Your task to perform on an android device: clear history in the chrome app Image 0: 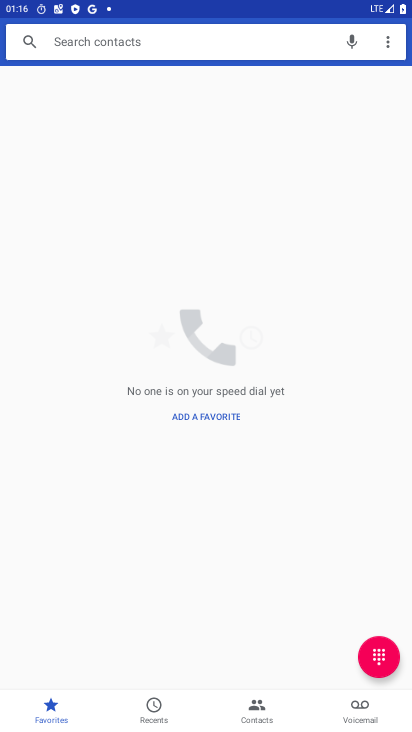
Step 0: press home button
Your task to perform on an android device: clear history in the chrome app Image 1: 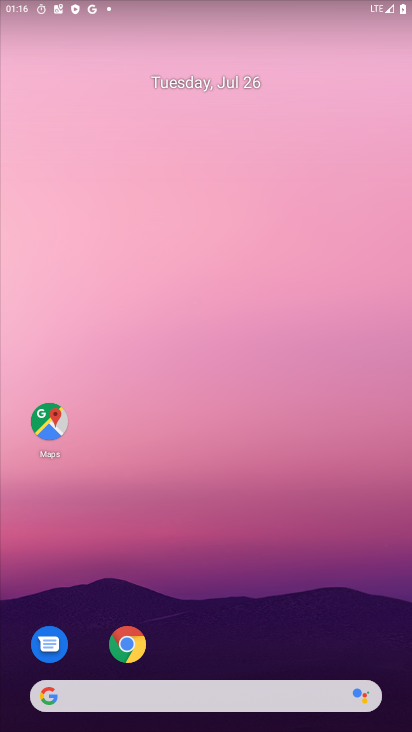
Step 1: click (130, 649)
Your task to perform on an android device: clear history in the chrome app Image 2: 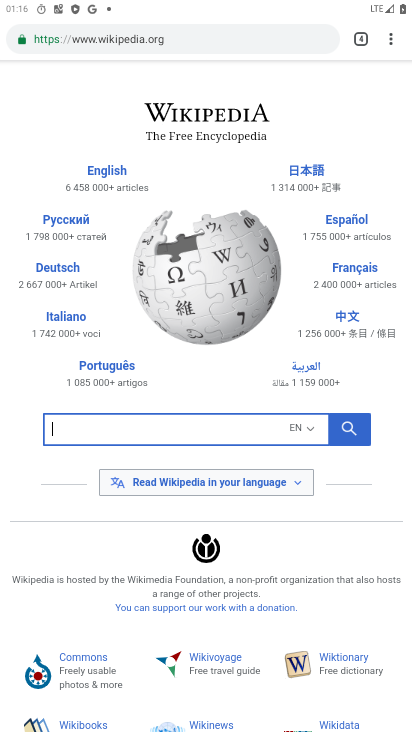
Step 2: click (391, 41)
Your task to perform on an android device: clear history in the chrome app Image 3: 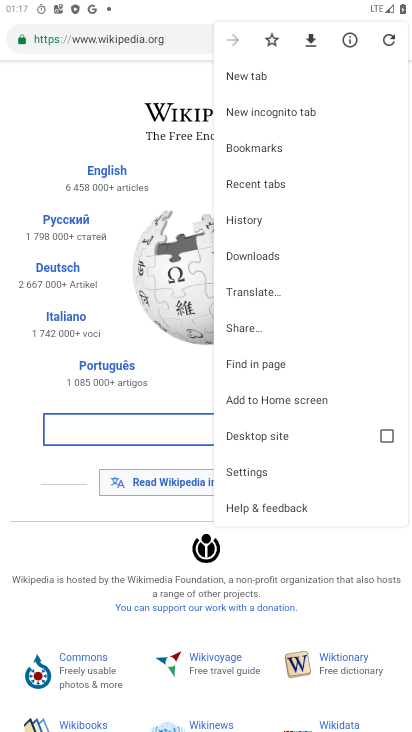
Step 3: click (254, 477)
Your task to perform on an android device: clear history in the chrome app Image 4: 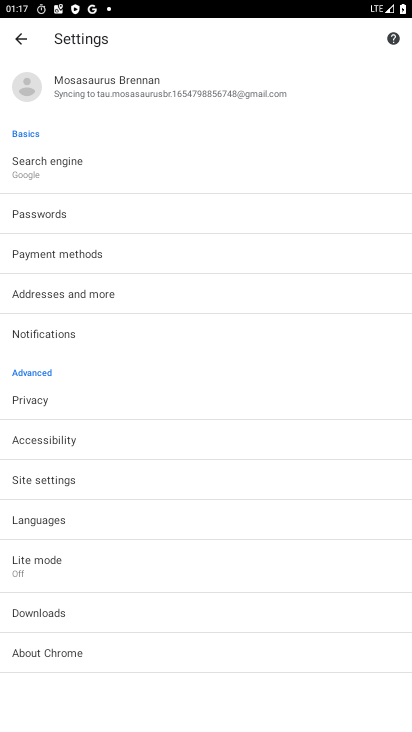
Step 4: click (44, 403)
Your task to perform on an android device: clear history in the chrome app Image 5: 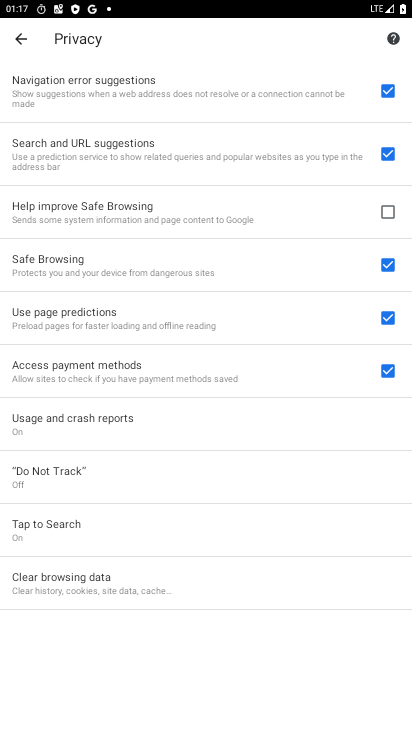
Step 5: click (70, 587)
Your task to perform on an android device: clear history in the chrome app Image 6: 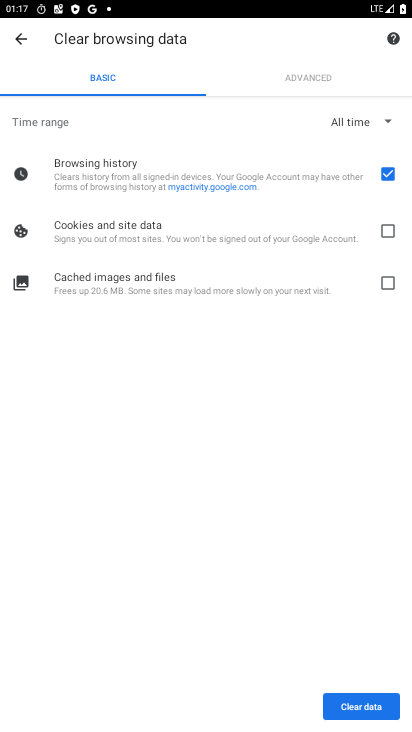
Step 6: click (371, 703)
Your task to perform on an android device: clear history in the chrome app Image 7: 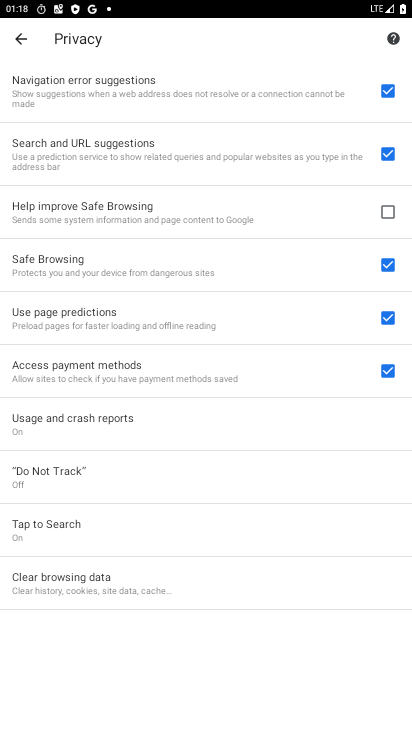
Step 7: task complete